Your task to perform on an android device: check google app version Image 0: 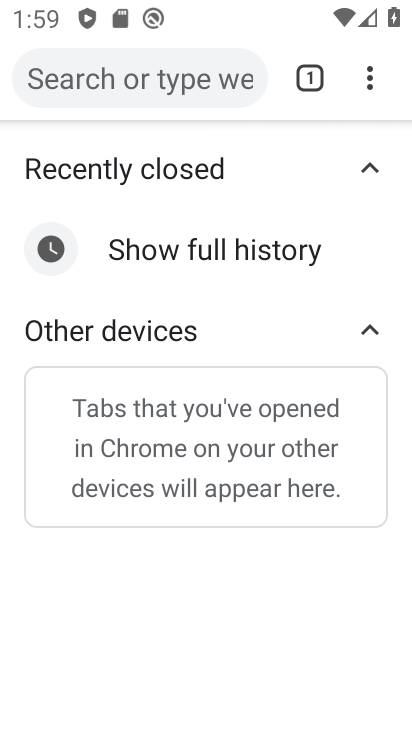
Step 0: press home button
Your task to perform on an android device: check google app version Image 1: 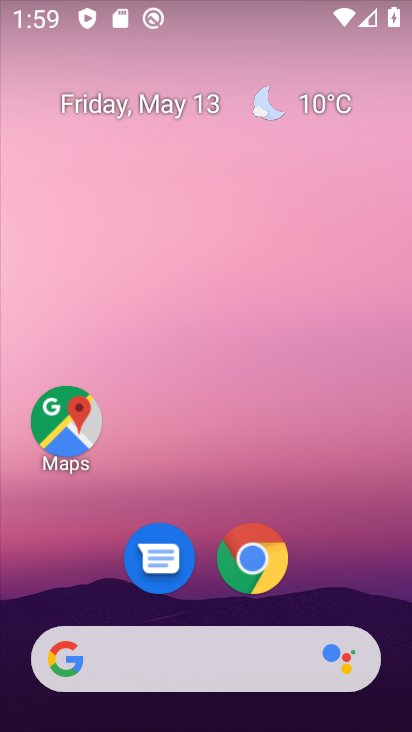
Step 1: drag from (199, 593) to (214, 135)
Your task to perform on an android device: check google app version Image 2: 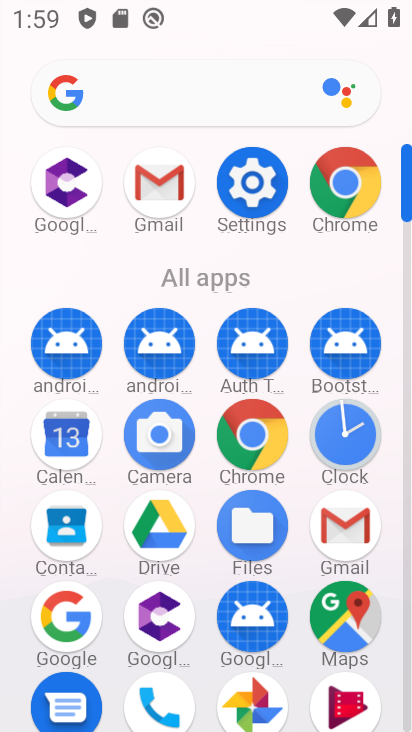
Step 2: click (82, 603)
Your task to perform on an android device: check google app version Image 3: 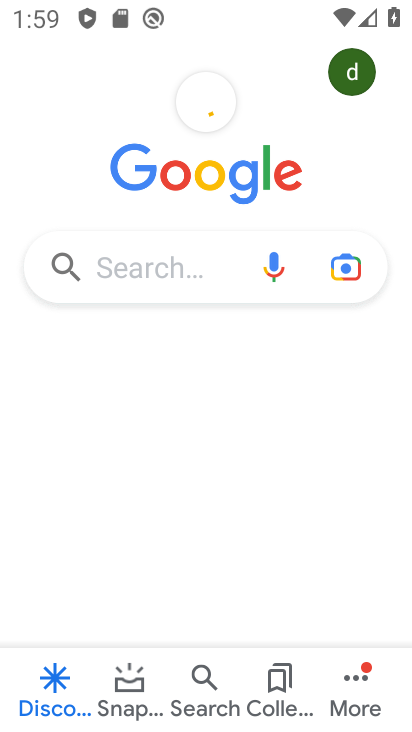
Step 3: click (355, 687)
Your task to perform on an android device: check google app version Image 4: 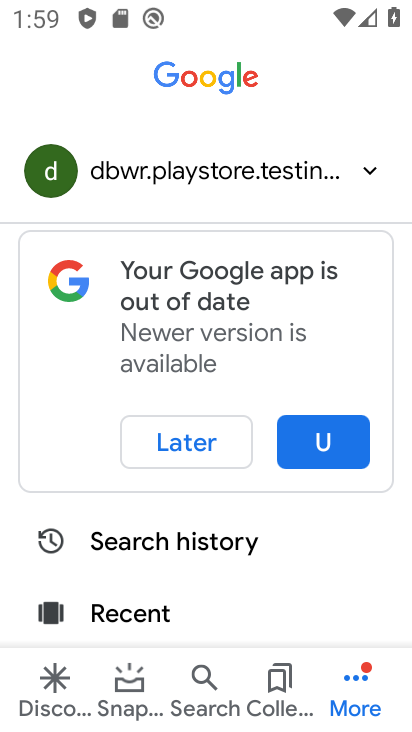
Step 4: drag from (268, 595) to (254, 197)
Your task to perform on an android device: check google app version Image 5: 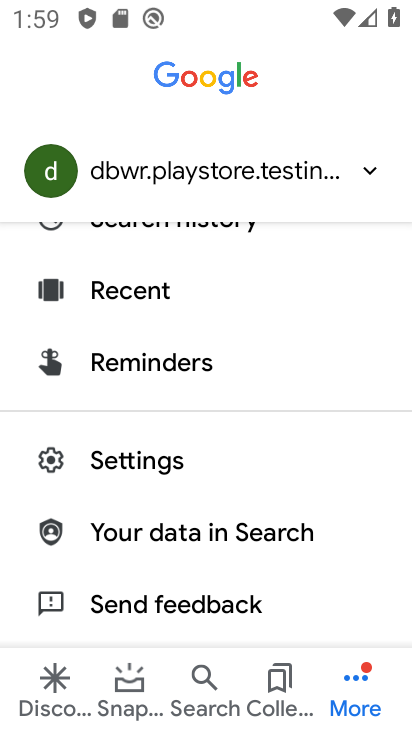
Step 5: click (192, 444)
Your task to perform on an android device: check google app version Image 6: 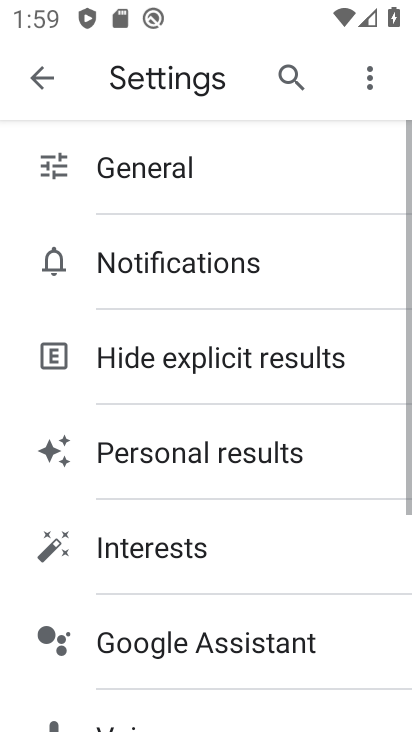
Step 6: drag from (234, 566) to (205, 344)
Your task to perform on an android device: check google app version Image 7: 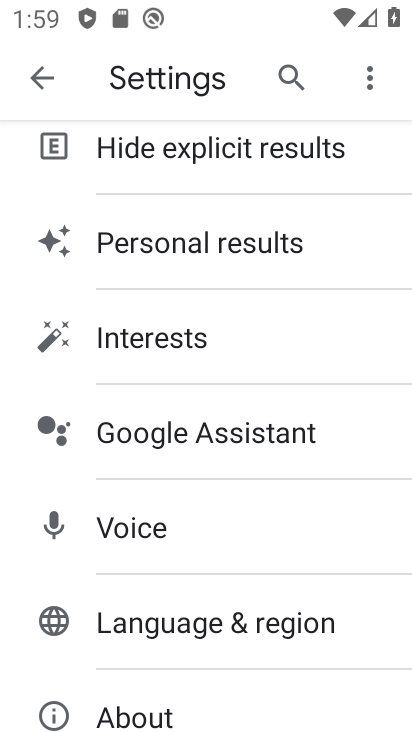
Step 7: drag from (218, 541) to (224, 255)
Your task to perform on an android device: check google app version Image 8: 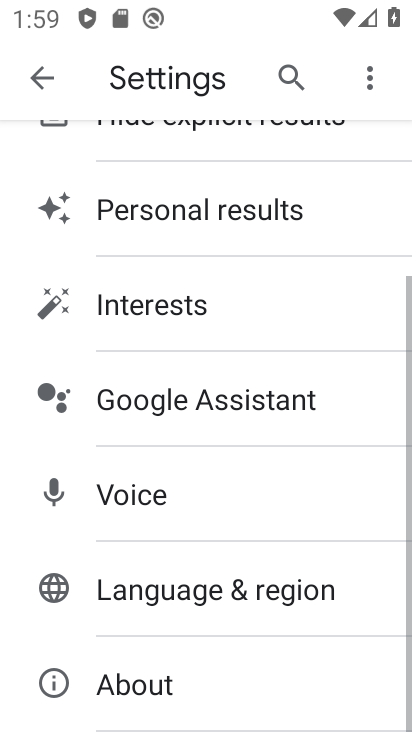
Step 8: click (155, 651)
Your task to perform on an android device: check google app version Image 9: 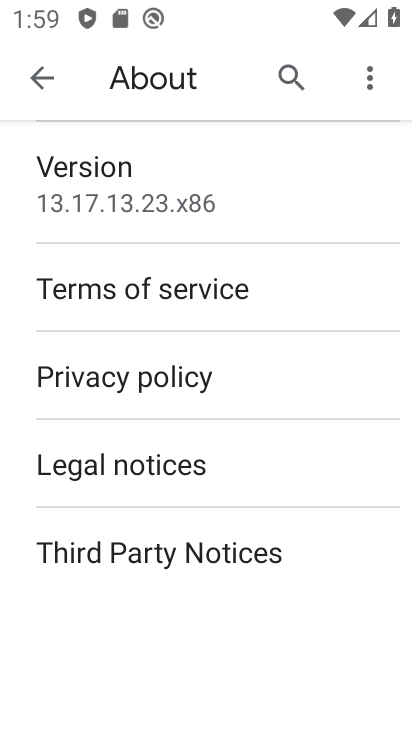
Step 9: click (105, 202)
Your task to perform on an android device: check google app version Image 10: 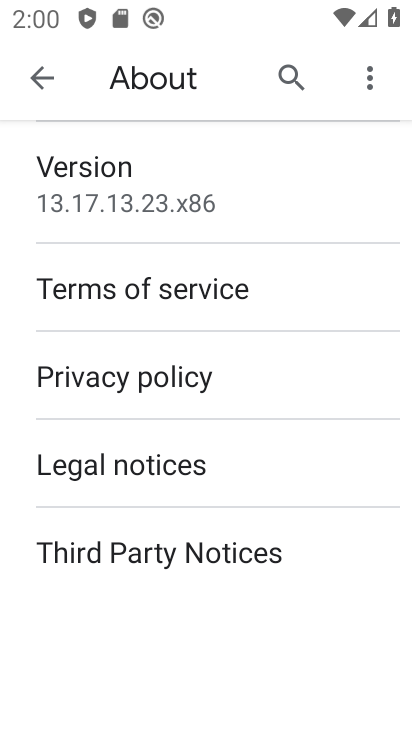
Step 10: click (105, 202)
Your task to perform on an android device: check google app version Image 11: 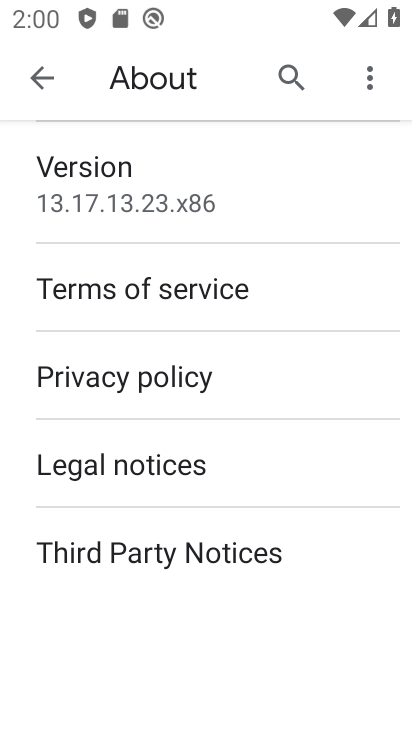
Step 11: task complete